Your task to perform on an android device: Open calendar and show me the fourth week of next month Image 0: 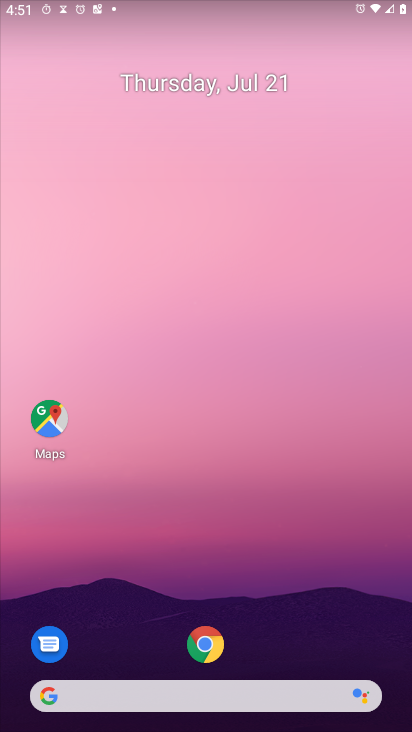
Step 0: press home button
Your task to perform on an android device: Open calendar and show me the fourth week of next month Image 1: 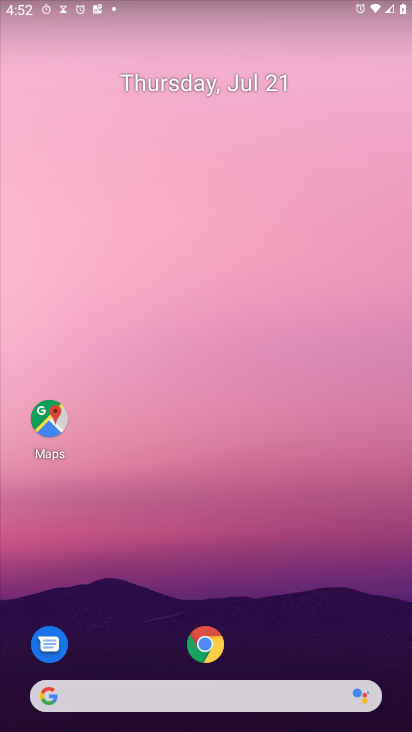
Step 1: drag from (295, 657) to (287, 288)
Your task to perform on an android device: Open calendar and show me the fourth week of next month Image 2: 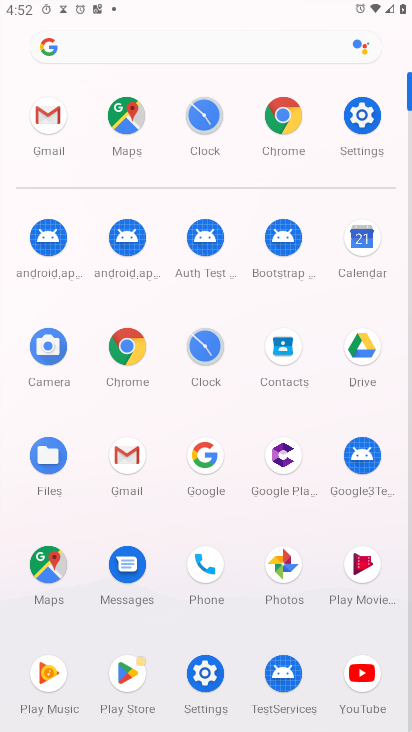
Step 2: click (354, 236)
Your task to perform on an android device: Open calendar and show me the fourth week of next month Image 3: 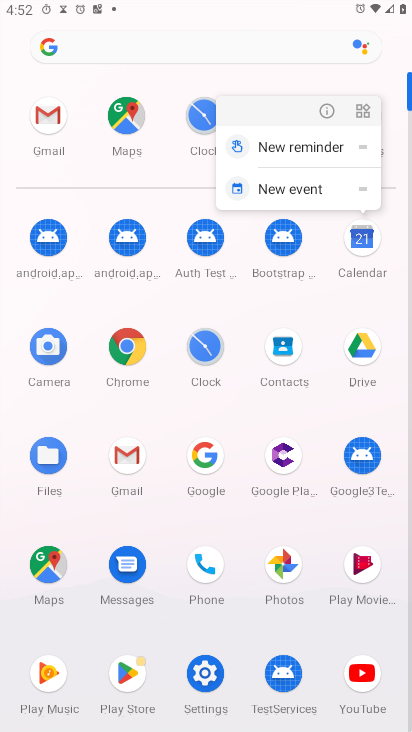
Step 3: click (354, 236)
Your task to perform on an android device: Open calendar and show me the fourth week of next month Image 4: 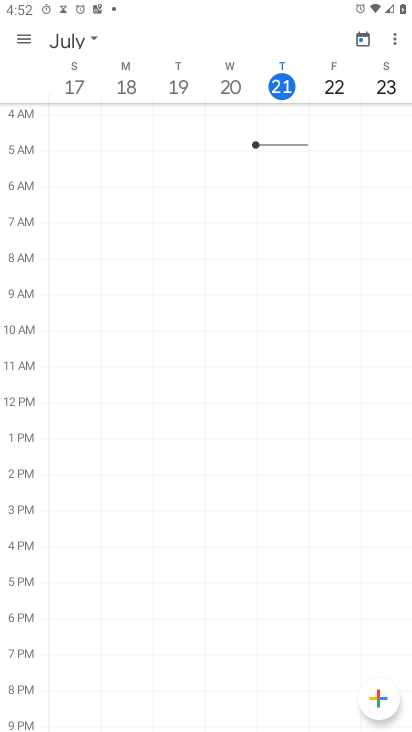
Step 4: click (94, 41)
Your task to perform on an android device: Open calendar and show me the fourth week of next month Image 5: 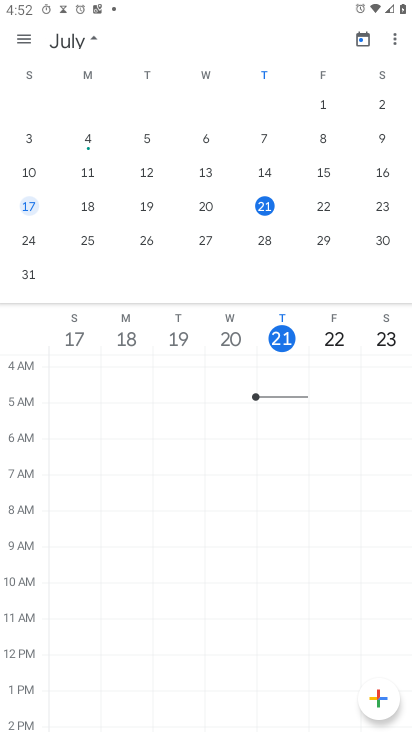
Step 5: drag from (362, 157) to (117, 137)
Your task to perform on an android device: Open calendar and show me the fourth week of next month Image 6: 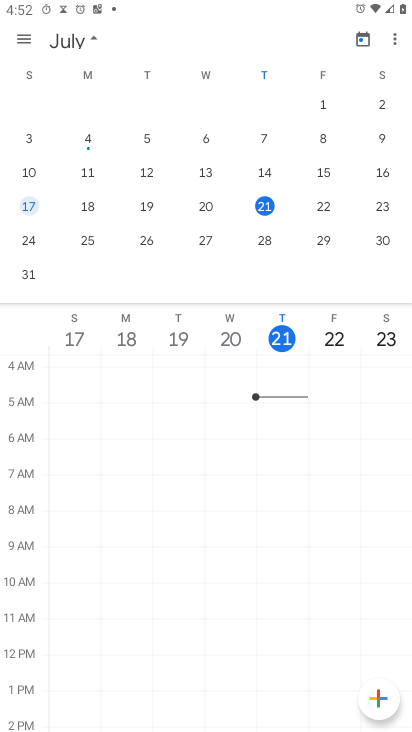
Step 6: drag from (367, 150) to (91, 90)
Your task to perform on an android device: Open calendar and show me the fourth week of next month Image 7: 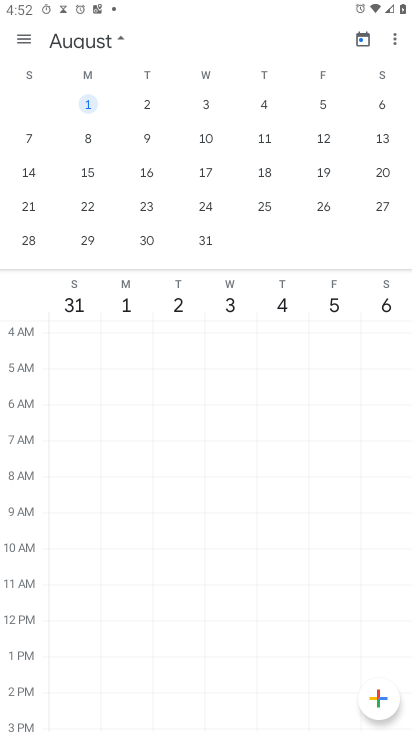
Step 7: click (269, 212)
Your task to perform on an android device: Open calendar and show me the fourth week of next month Image 8: 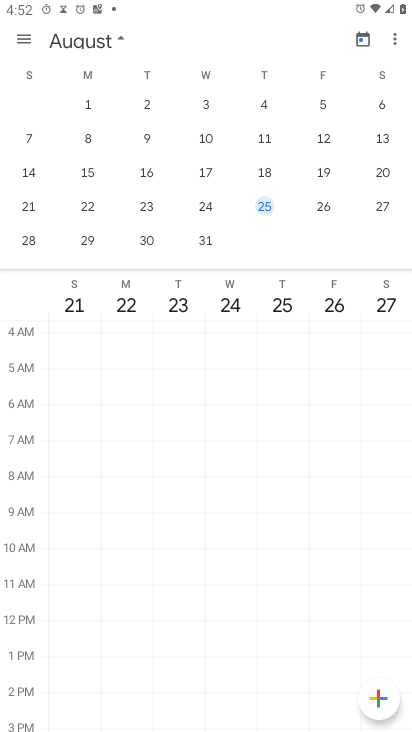
Step 8: click (319, 211)
Your task to perform on an android device: Open calendar and show me the fourth week of next month Image 9: 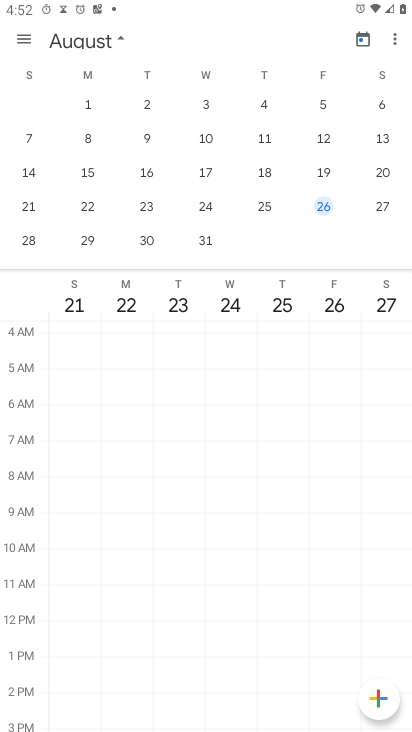
Step 9: click (385, 204)
Your task to perform on an android device: Open calendar and show me the fourth week of next month Image 10: 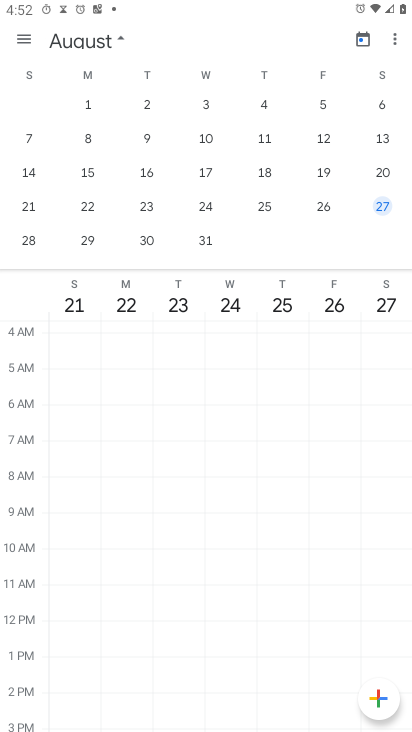
Step 10: click (27, 237)
Your task to perform on an android device: Open calendar and show me the fourth week of next month Image 11: 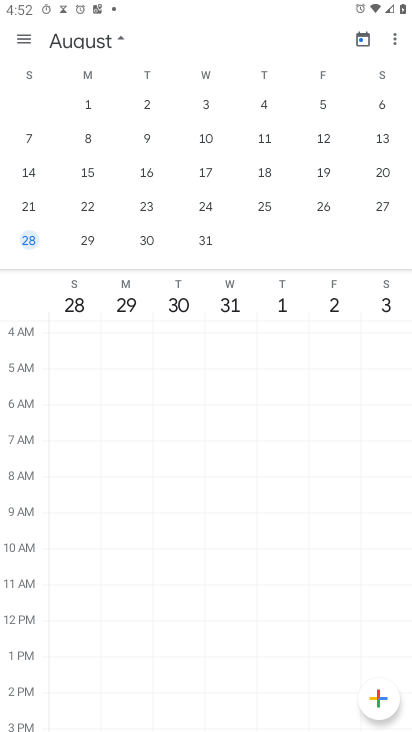
Step 11: click (95, 239)
Your task to perform on an android device: Open calendar and show me the fourth week of next month Image 12: 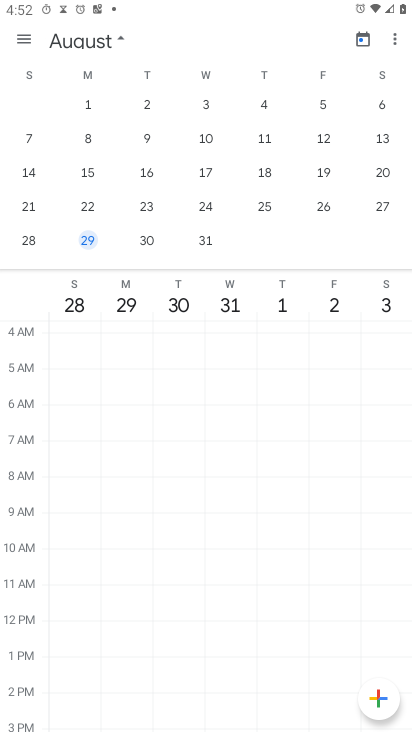
Step 12: click (147, 243)
Your task to perform on an android device: Open calendar and show me the fourth week of next month Image 13: 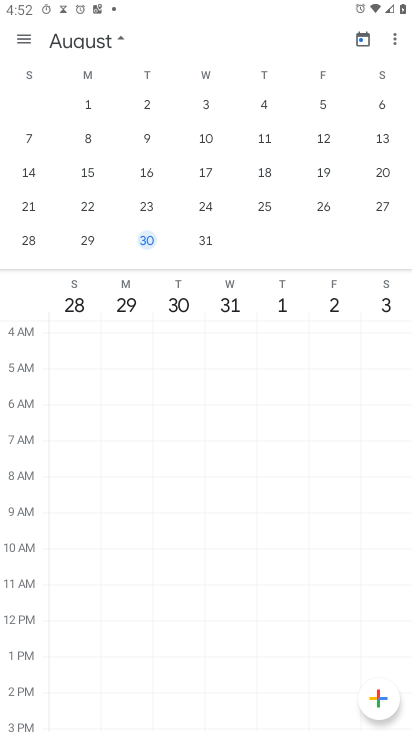
Step 13: click (208, 242)
Your task to perform on an android device: Open calendar and show me the fourth week of next month Image 14: 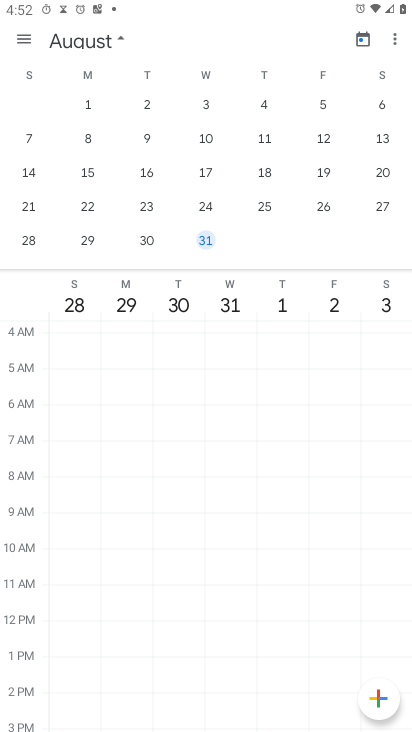
Step 14: task complete